Your task to perform on an android device: Find coffee shops on Maps Image 0: 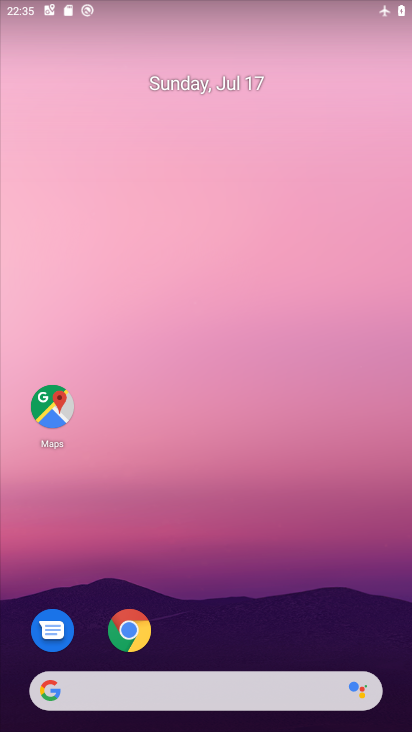
Step 0: click (62, 406)
Your task to perform on an android device: Find coffee shops on Maps Image 1: 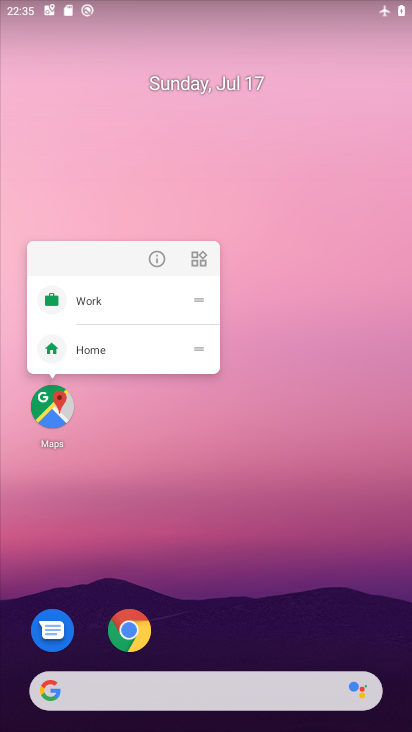
Step 1: click (61, 416)
Your task to perform on an android device: Find coffee shops on Maps Image 2: 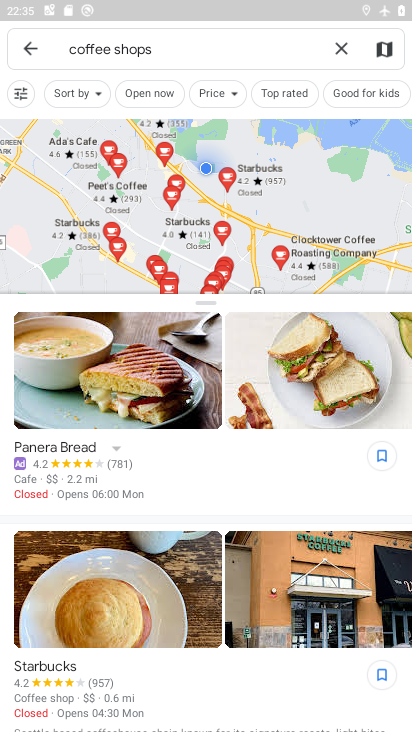
Step 2: task complete